Your task to perform on an android device: change the clock display to show seconds Image 0: 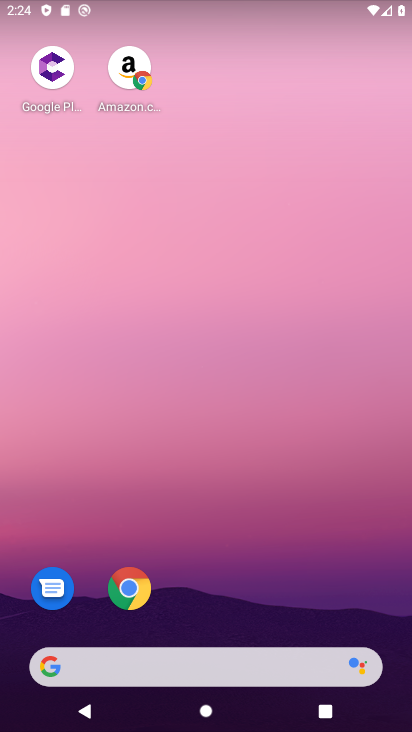
Step 0: drag from (311, 538) to (292, 32)
Your task to perform on an android device: change the clock display to show seconds Image 1: 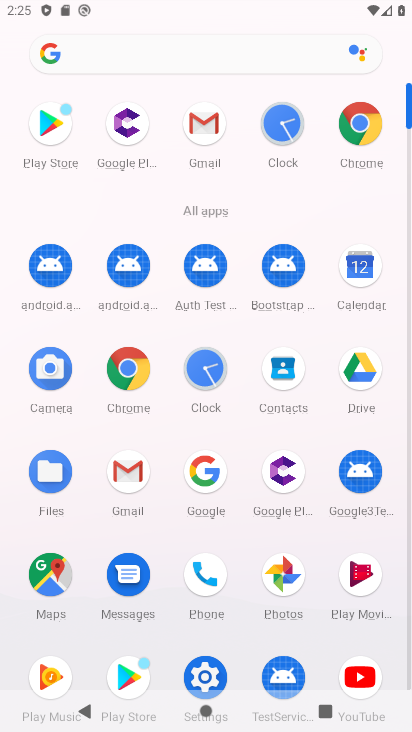
Step 1: click (285, 124)
Your task to perform on an android device: change the clock display to show seconds Image 2: 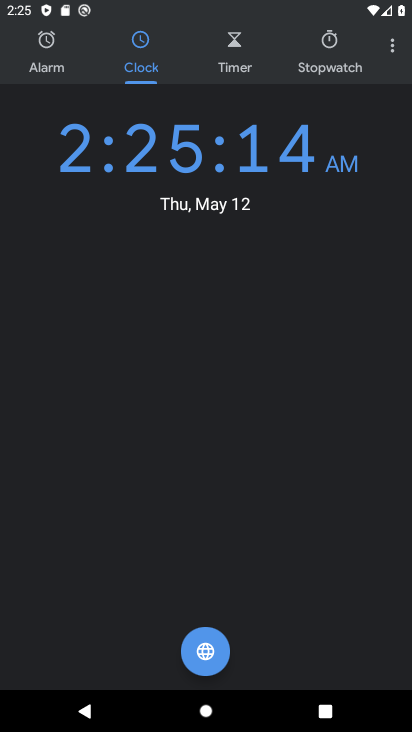
Step 2: click (330, 55)
Your task to perform on an android device: change the clock display to show seconds Image 3: 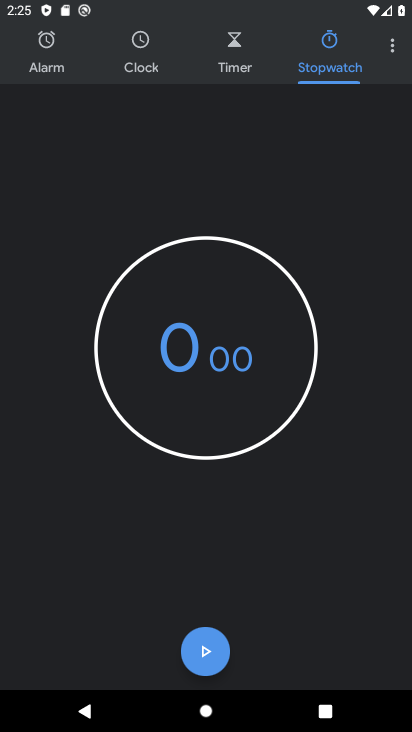
Step 3: click (398, 54)
Your task to perform on an android device: change the clock display to show seconds Image 4: 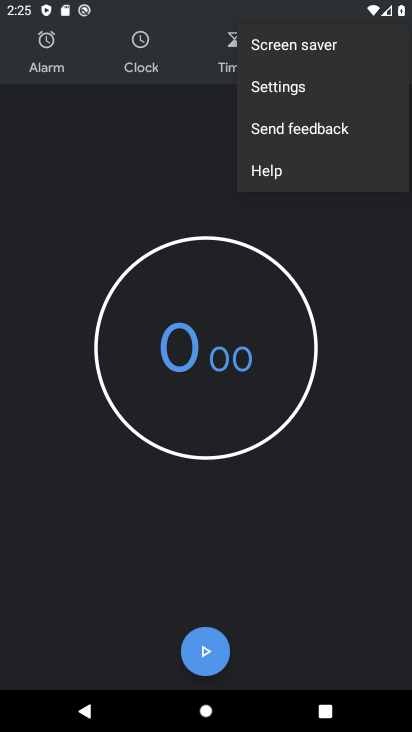
Step 4: click (308, 83)
Your task to perform on an android device: change the clock display to show seconds Image 5: 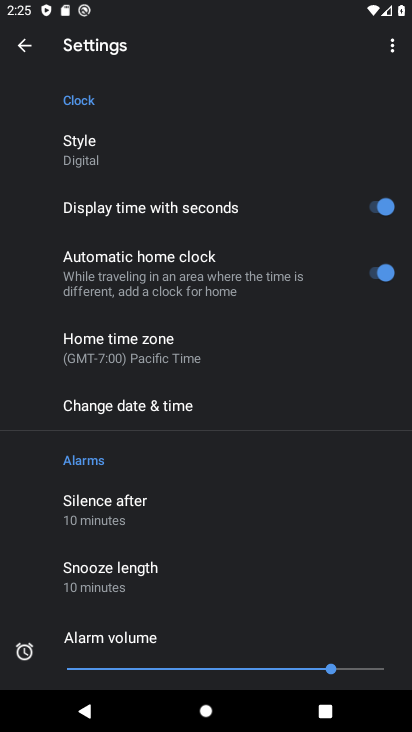
Step 5: click (387, 213)
Your task to perform on an android device: change the clock display to show seconds Image 6: 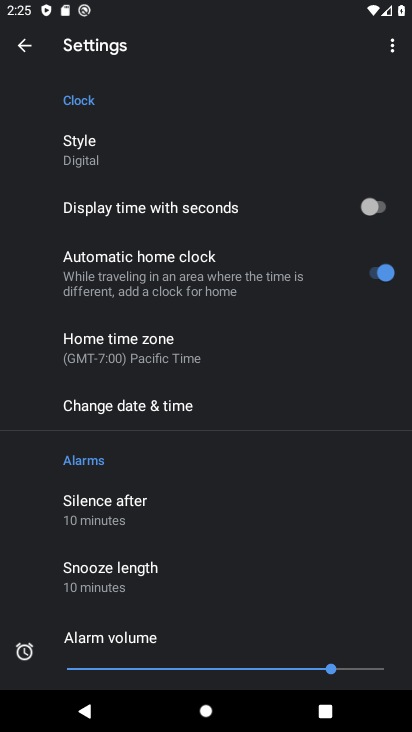
Step 6: task complete